Your task to perform on an android device: open app "Etsy: Buy & Sell Unique Items" Image 0: 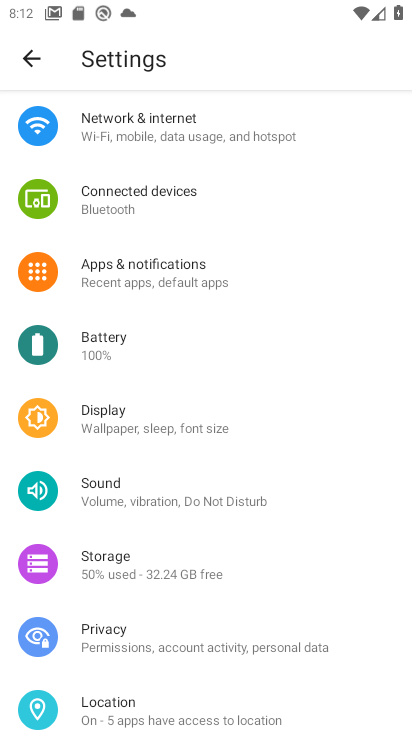
Step 0: press home button
Your task to perform on an android device: open app "Etsy: Buy & Sell Unique Items" Image 1: 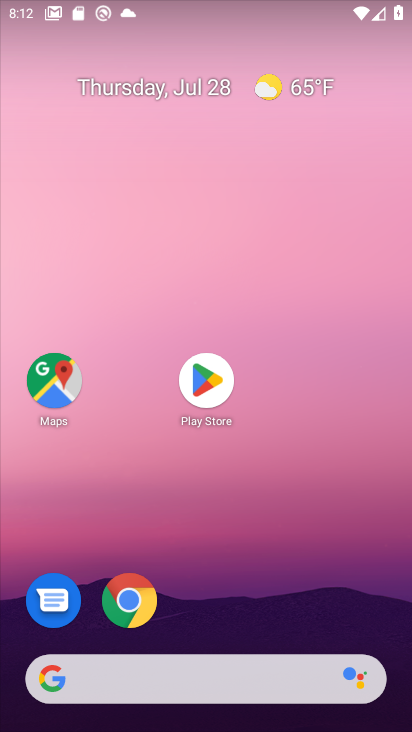
Step 1: click (207, 379)
Your task to perform on an android device: open app "Etsy: Buy & Sell Unique Items" Image 2: 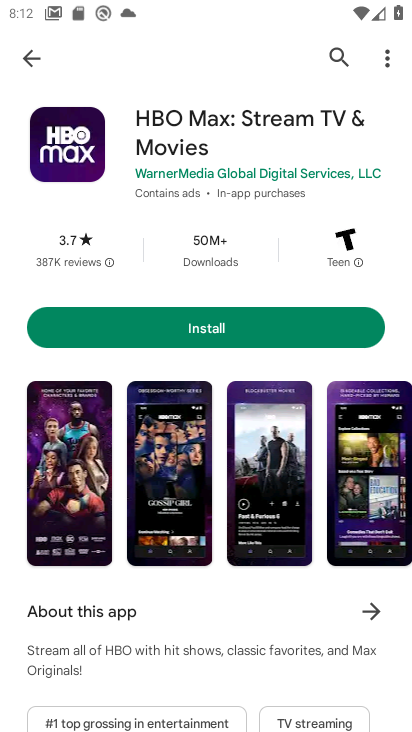
Step 2: click (330, 51)
Your task to perform on an android device: open app "Etsy: Buy & Sell Unique Items" Image 3: 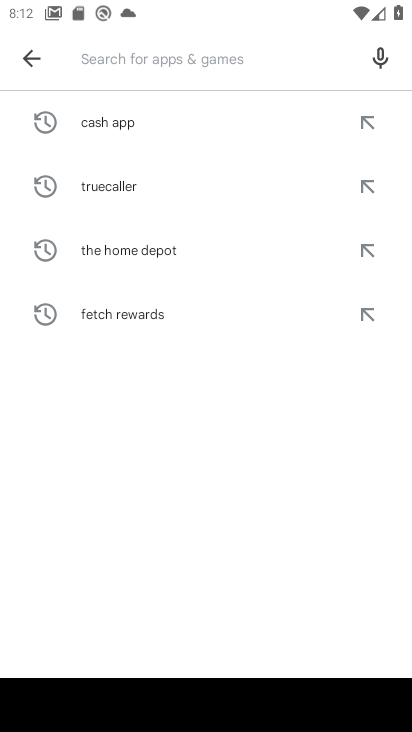
Step 3: type "Etsy: Buy & Sell Unique Items"
Your task to perform on an android device: open app "Etsy: Buy & Sell Unique Items" Image 4: 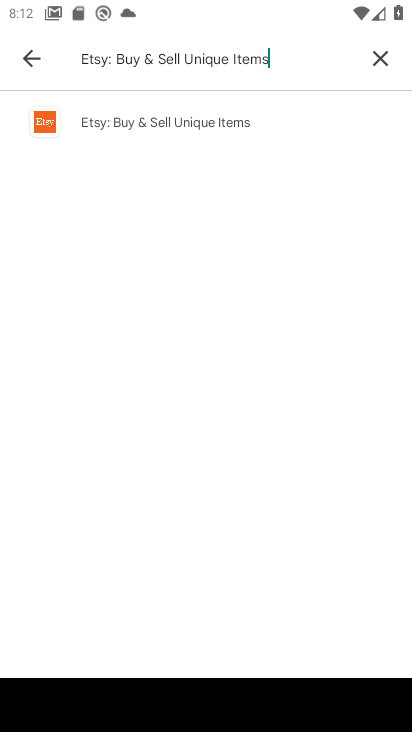
Step 4: click (149, 121)
Your task to perform on an android device: open app "Etsy: Buy & Sell Unique Items" Image 5: 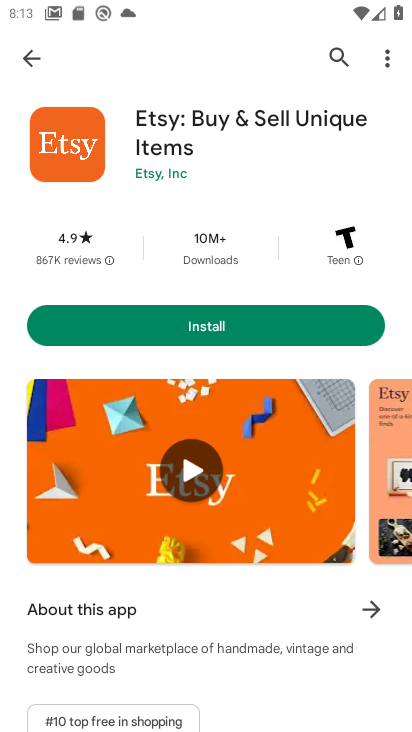
Step 5: task complete